Your task to perform on an android device: visit the assistant section in the google photos Image 0: 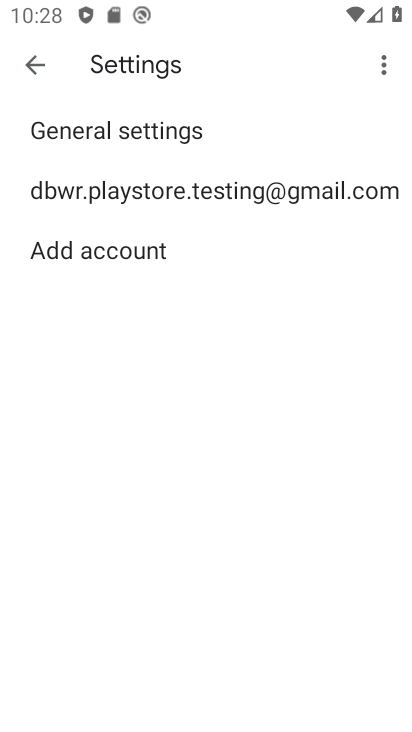
Step 0: press home button
Your task to perform on an android device: visit the assistant section in the google photos Image 1: 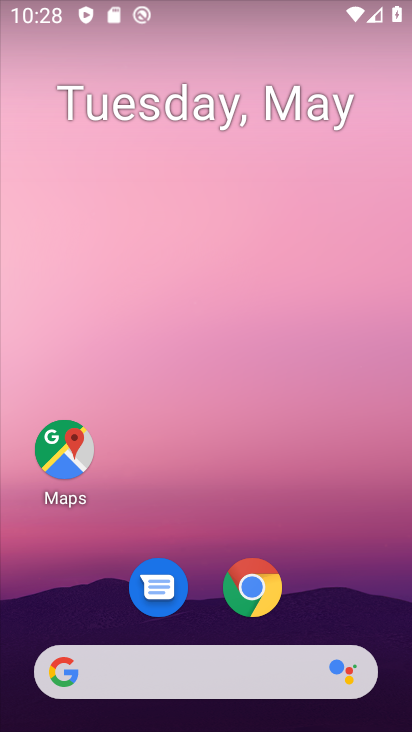
Step 1: drag from (369, 599) to (362, 206)
Your task to perform on an android device: visit the assistant section in the google photos Image 2: 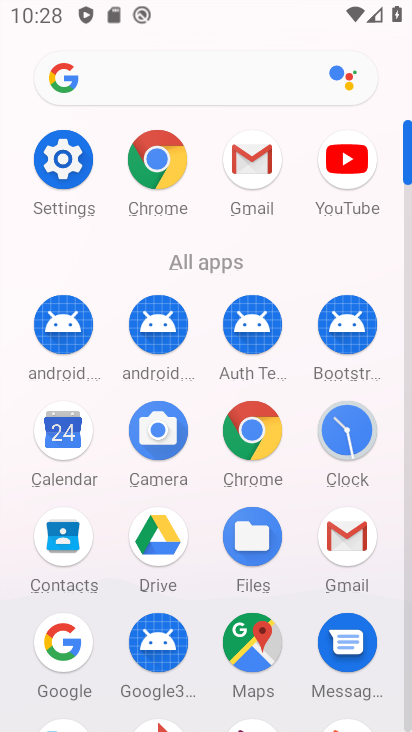
Step 2: drag from (203, 594) to (232, 213)
Your task to perform on an android device: visit the assistant section in the google photos Image 3: 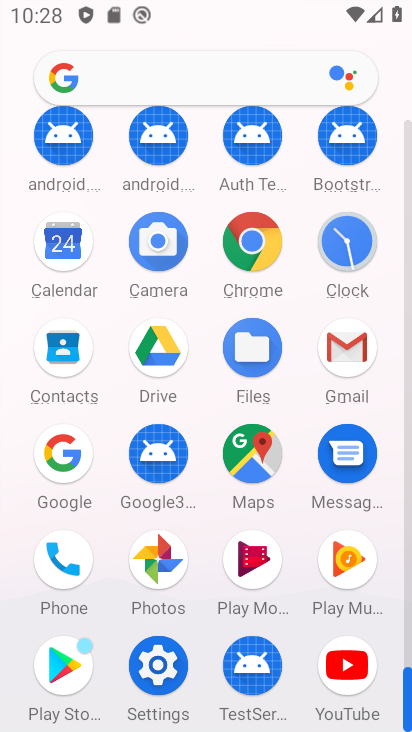
Step 3: click (180, 567)
Your task to perform on an android device: visit the assistant section in the google photos Image 4: 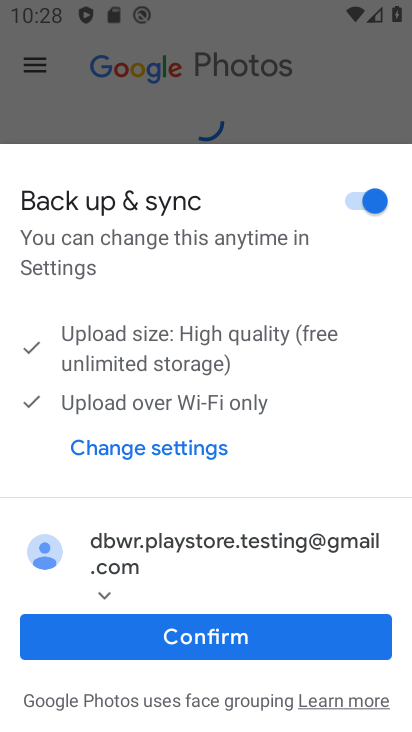
Step 4: click (207, 637)
Your task to perform on an android device: visit the assistant section in the google photos Image 5: 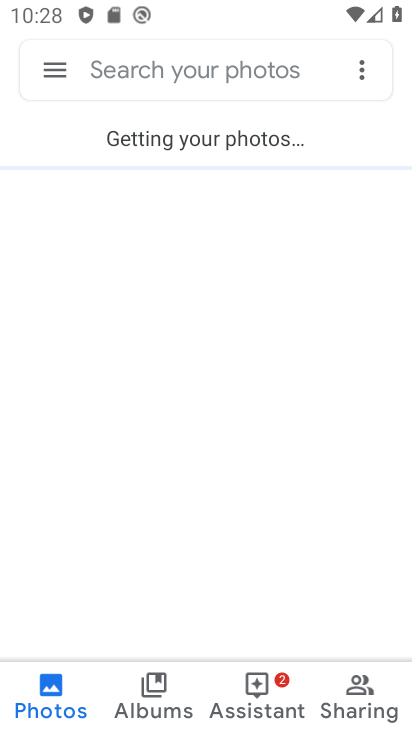
Step 5: click (245, 677)
Your task to perform on an android device: visit the assistant section in the google photos Image 6: 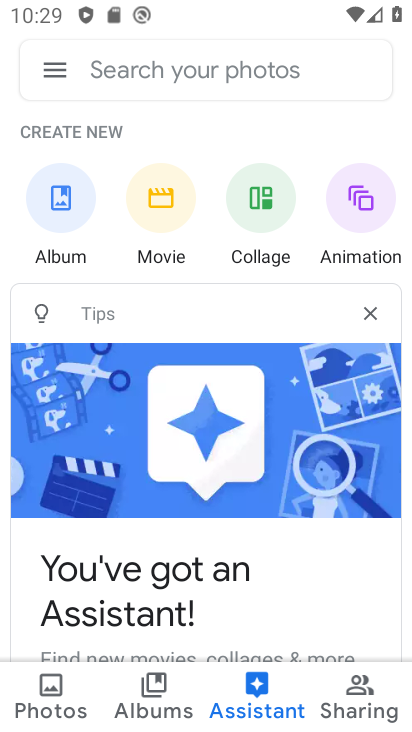
Step 6: task complete